Your task to perform on an android device: Open privacy settings Image 0: 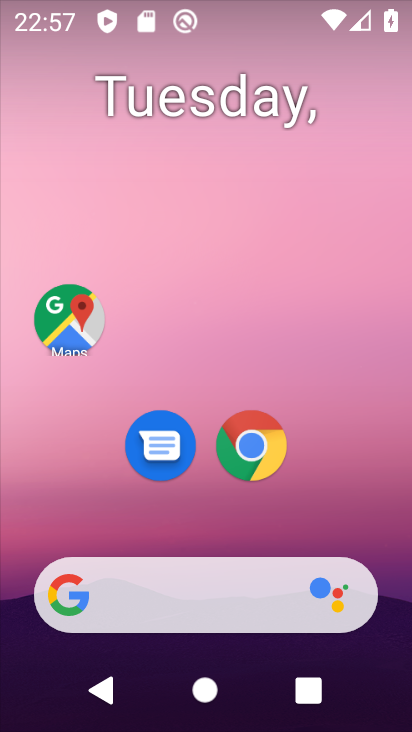
Step 0: drag from (211, 519) to (183, 60)
Your task to perform on an android device: Open privacy settings Image 1: 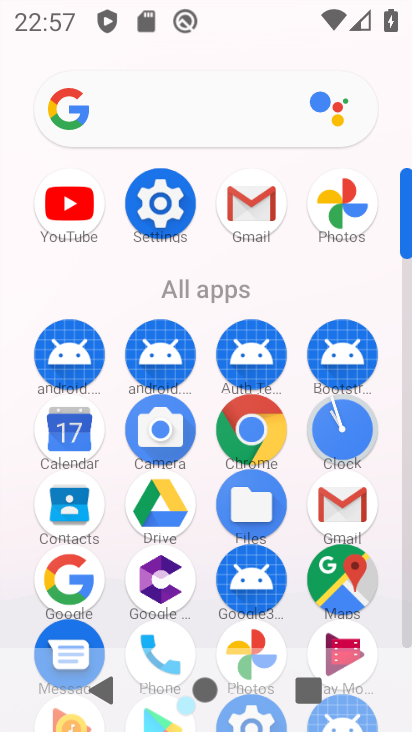
Step 1: click (150, 211)
Your task to perform on an android device: Open privacy settings Image 2: 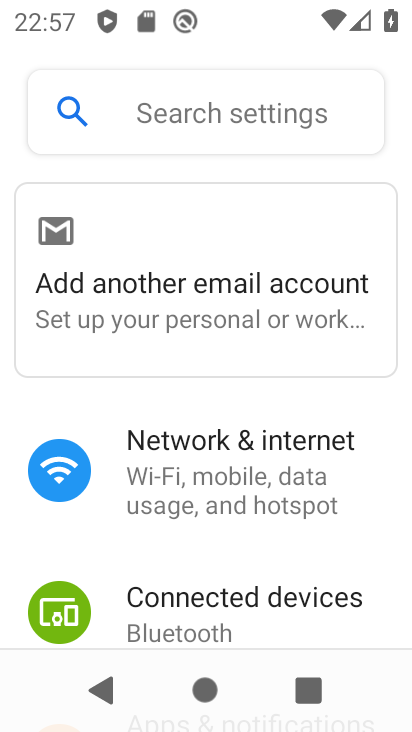
Step 2: drag from (247, 510) to (320, 235)
Your task to perform on an android device: Open privacy settings Image 3: 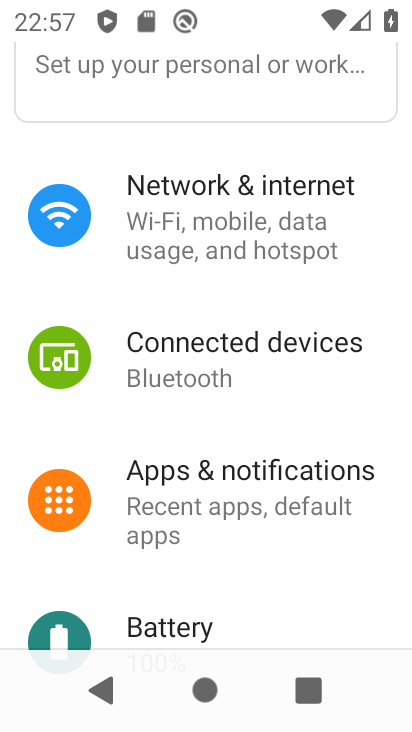
Step 3: drag from (271, 546) to (201, 197)
Your task to perform on an android device: Open privacy settings Image 4: 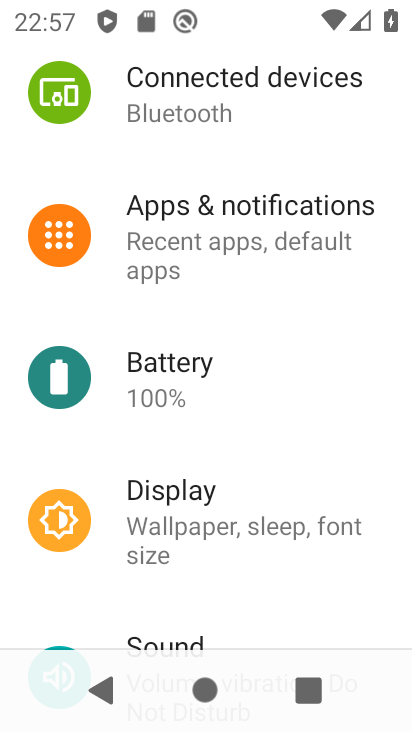
Step 4: drag from (180, 535) to (204, 367)
Your task to perform on an android device: Open privacy settings Image 5: 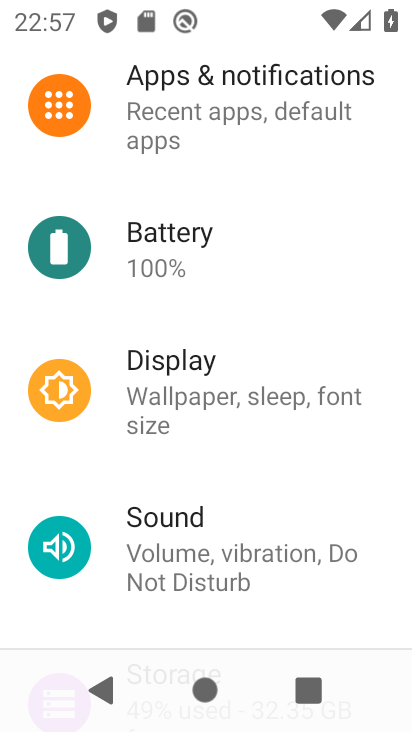
Step 5: drag from (184, 546) to (217, 312)
Your task to perform on an android device: Open privacy settings Image 6: 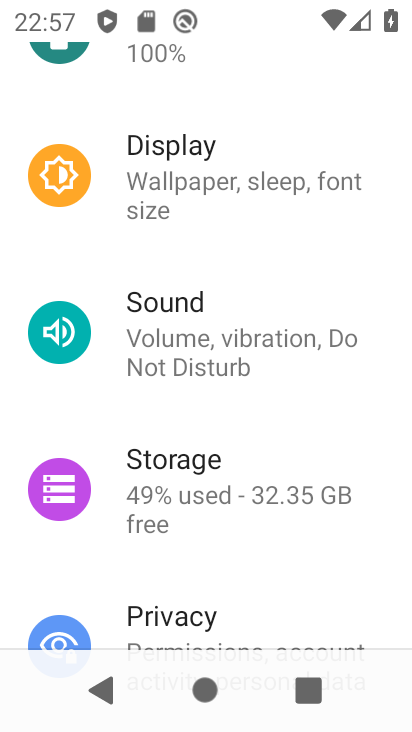
Step 6: drag from (215, 568) to (230, 363)
Your task to perform on an android device: Open privacy settings Image 7: 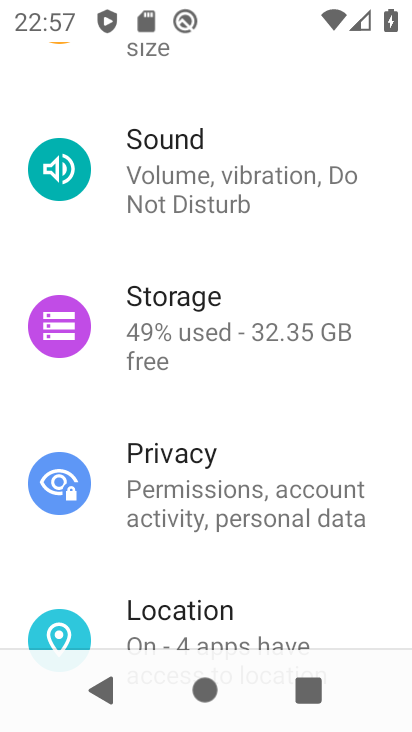
Step 7: click (223, 488)
Your task to perform on an android device: Open privacy settings Image 8: 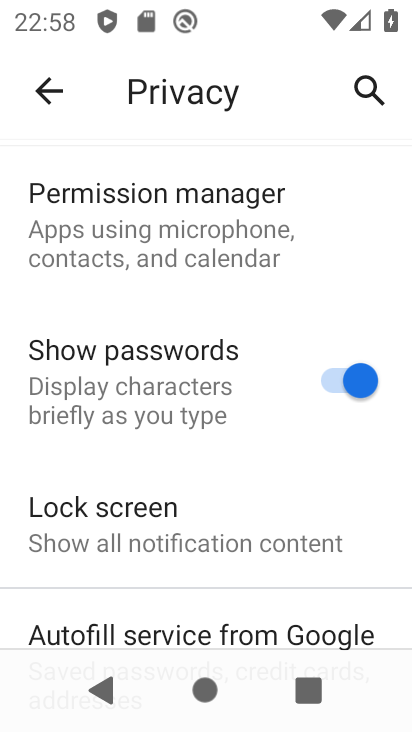
Step 8: task complete